Your task to perform on an android device: Open internet settings Image 0: 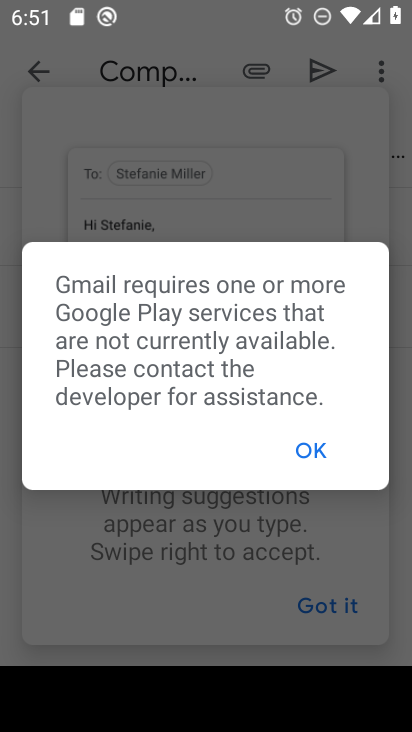
Step 0: press home button
Your task to perform on an android device: Open internet settings Image 1: 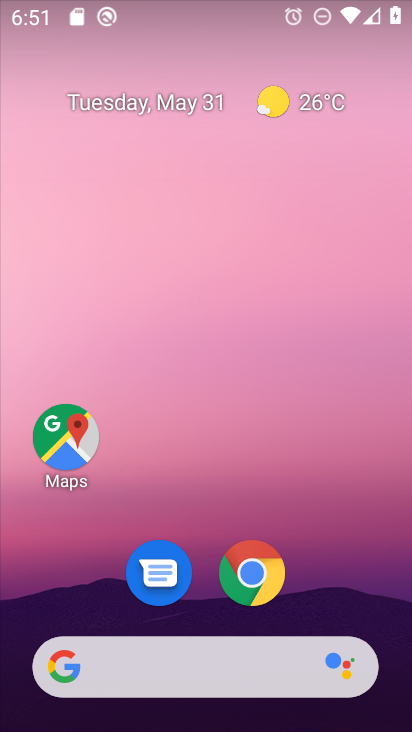
Step 1: drag from (389, 645) to (289, 42)
Your task to perform on an android device: Open internet settings Image 2: 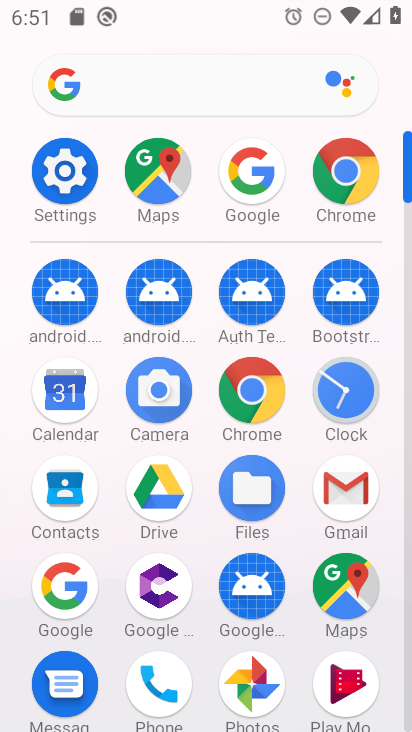
Step 2: click (57, 175)
Your task to perform on an android device: Open internet settings Image 3: 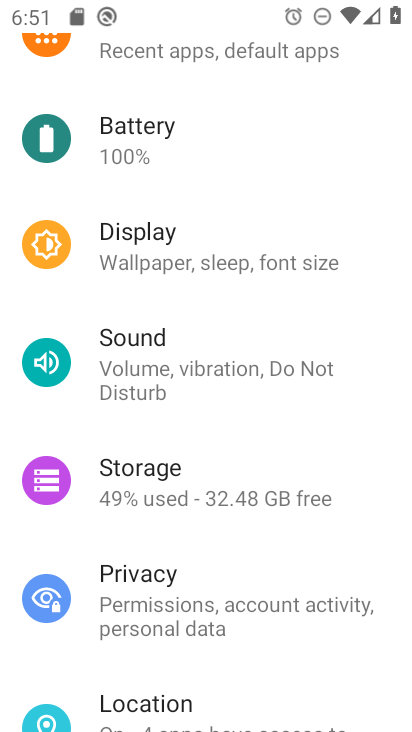
Step 3: drag from (128, 164) to (273, 641)
Your task to perform on an android device: Open internet settings Image 4: 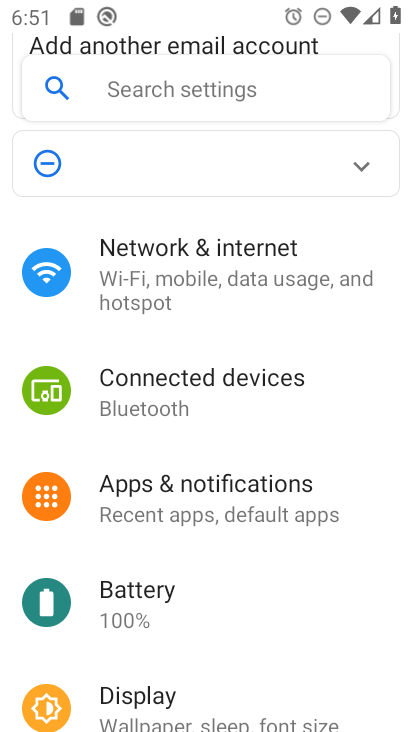
Step 4: click (282, 302)
Your task to perform on an android device: Open internet settings Image 5: 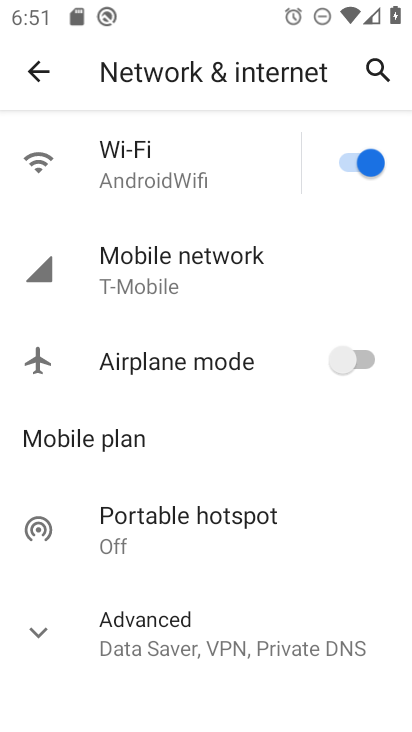
Step 5: task complete